Your task to perform on an android device: Play the latest video from the Huffington Post Image 0: 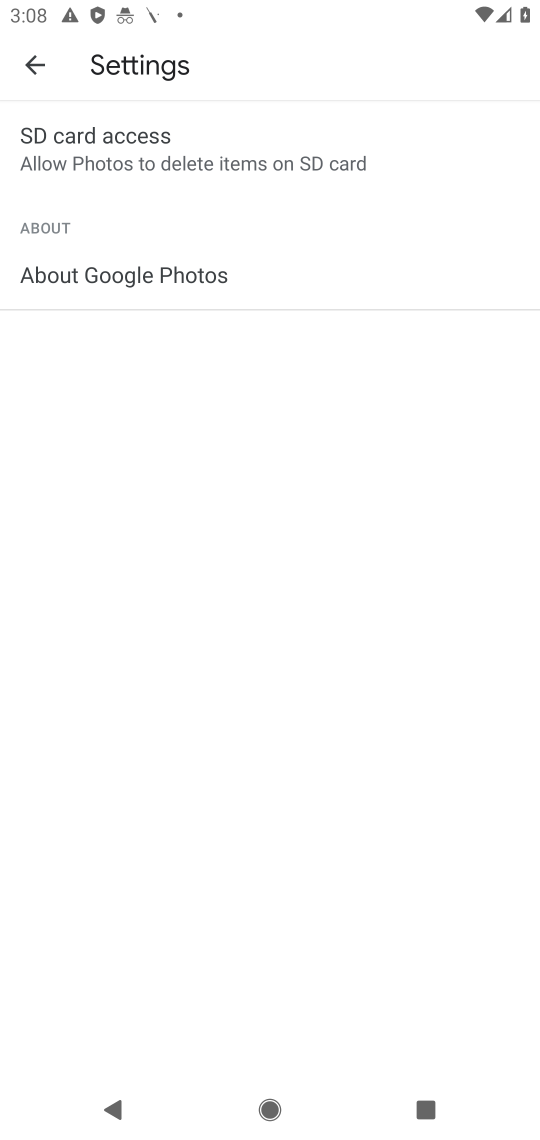
Step 0: press home button
Your task to perform on an android device: Play the latest video from the Huffington Post Image 1: 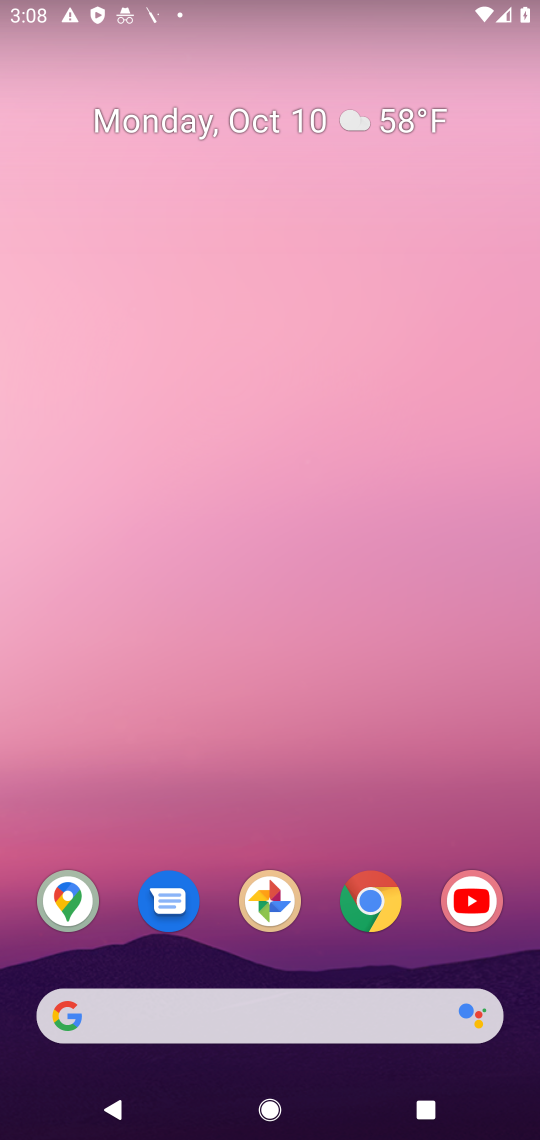
Step 1: drag from (341, 970) to (308, 541)
Your task to perform on an android device: Play the latest video from the Huffington Post Image 2: 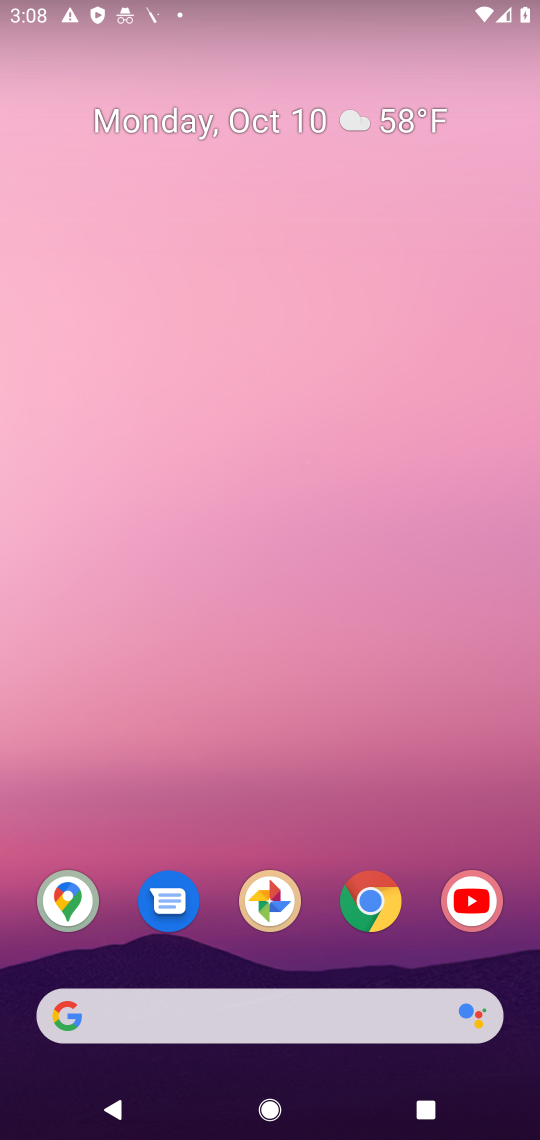
Step 2: drag from (308, 943) to (344, 280)
Your task to perform on an android device: Play the latest video from the Huffington Post Image 3: 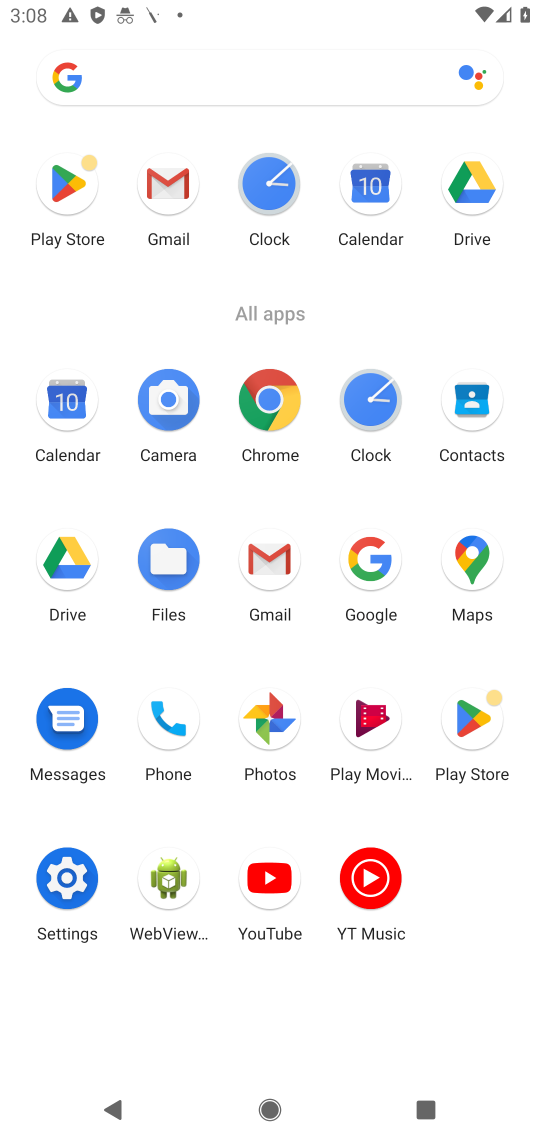
Step 3: click (272, 870)
Your task to perform on an android device: Play the latest video from the Huffington Post Image 4: 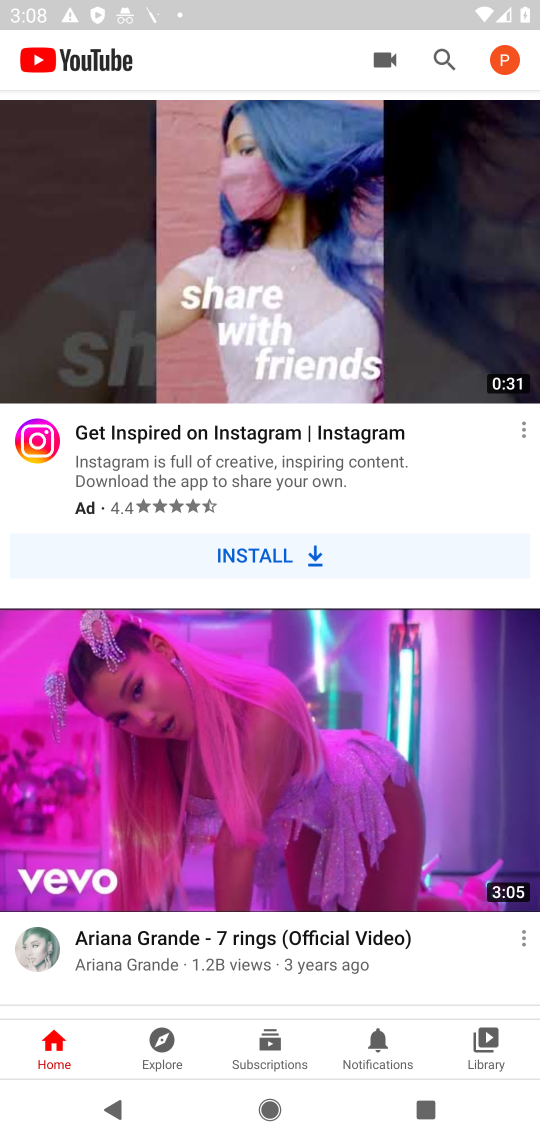
Step 4: click (442, 63)
Your task to perform on an android device: Play the latest video from the Huffington Post Image 5: 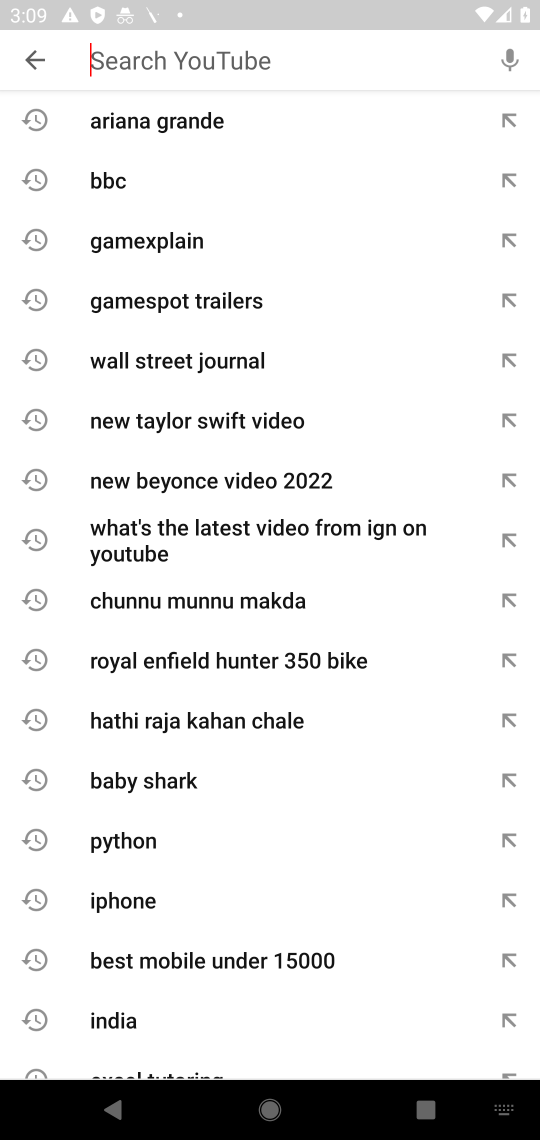
Step 5: type "Huffington Post"
Your task to perform on an android device: Play the latest video from the Huffington Post Image 6: 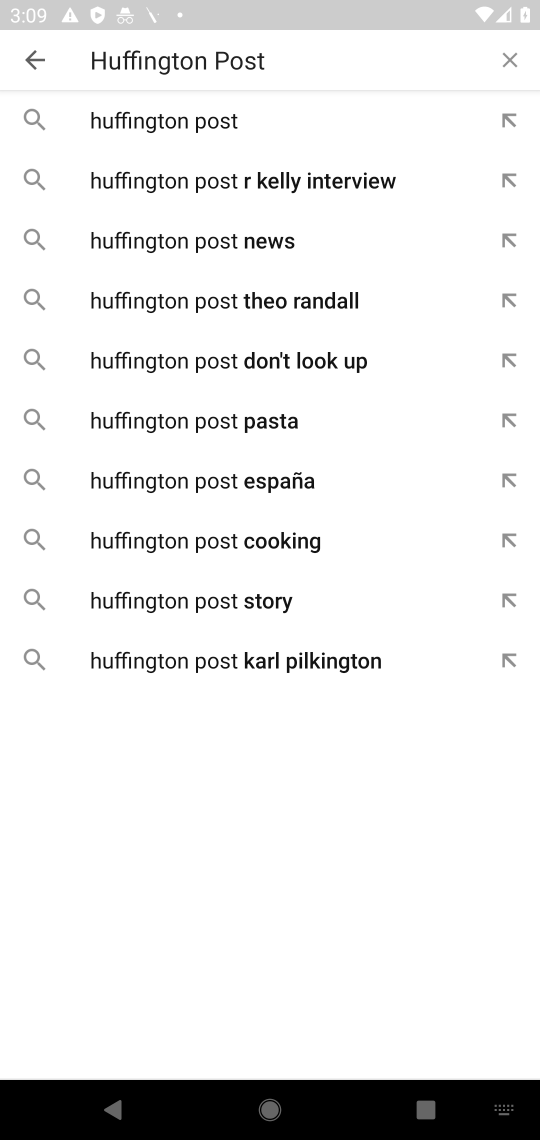
Step 6: click (260, 125)
Your task to perform on an android device: Play the latest video from the Huffington Post Image 7: 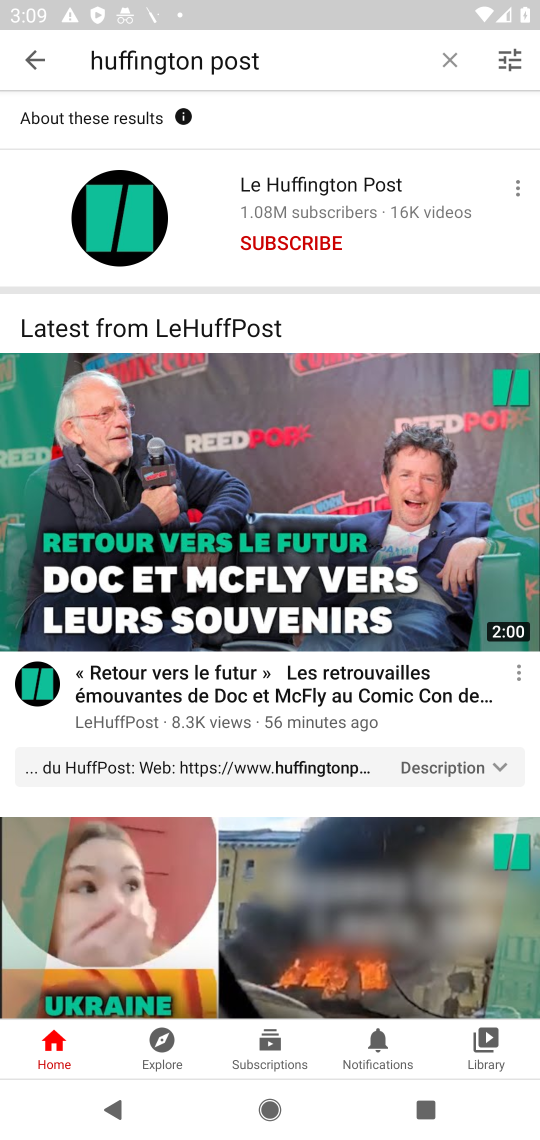
Step 7: task complete